Your task to perform on an android device: turn pop-ups on in chrome Image 0: 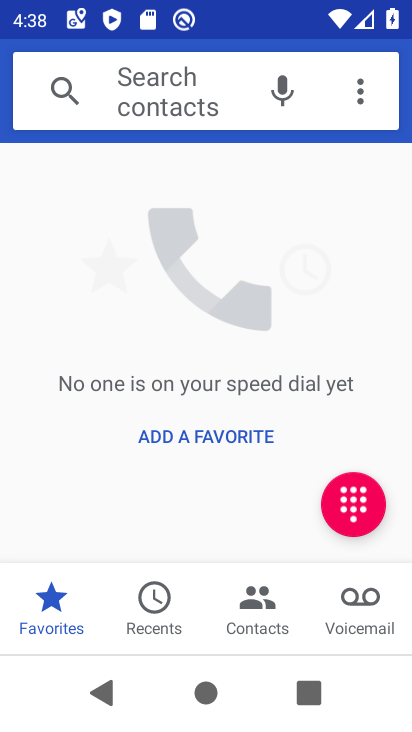
Step 0: press home button
Your task to perform on an android device: turn pop-ups on in chrome Image 1: 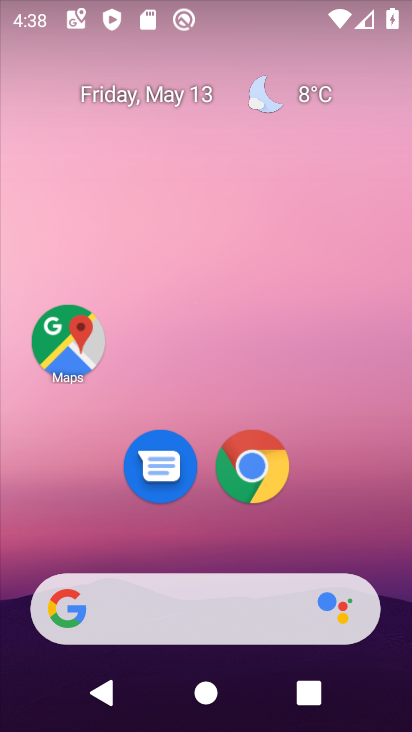
Step 1: click (254, 462)
Your task to perform on an android device: turn pop-ups on in chrome Image 2: 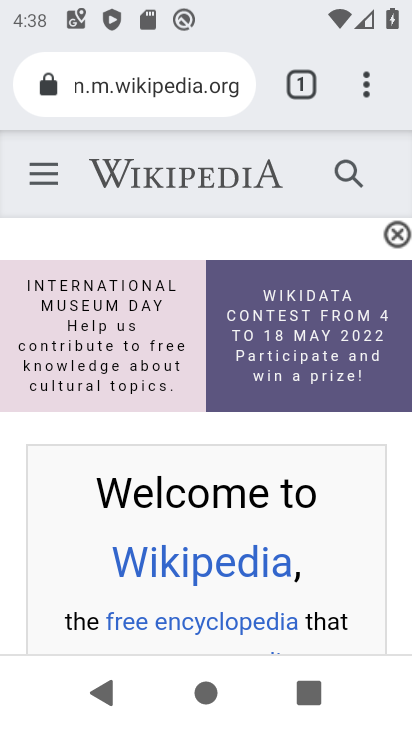
Step 2: click (369, 88)
Your task to perform on an android device: turn pop-ups on in chrome Image 3: 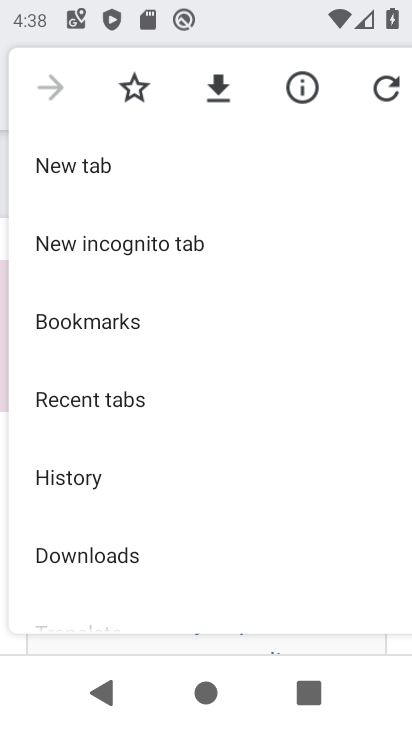
Step 3: drag from (183, 556) to (237, 94)
Your task to perform on an android device: turn pop-ups on in chrome Image 4: 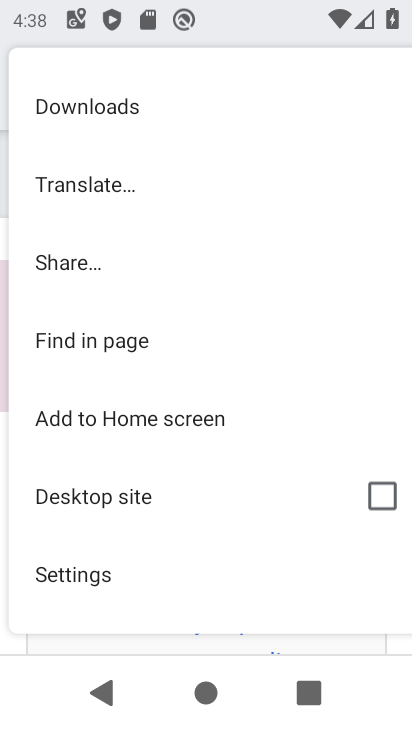
Step 4: click (84, 570)
Your task to perform on an android device: turn pop-ups on in chrome Image 5: 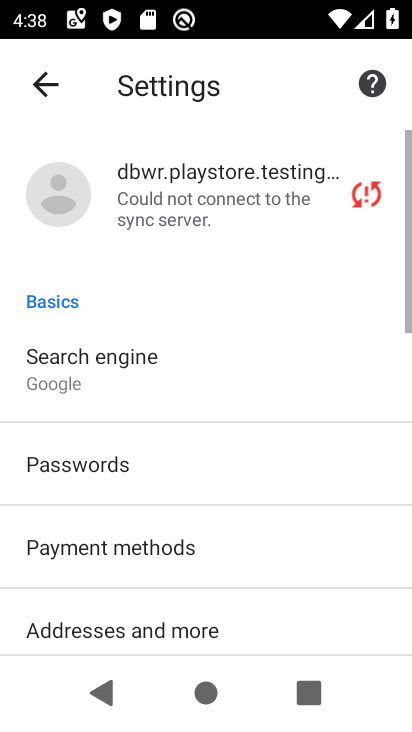
Step 5: drag from (287, 590) to (233, 77)
Your task to perform on an android device: turn pop-ups on in chrome Image 6: 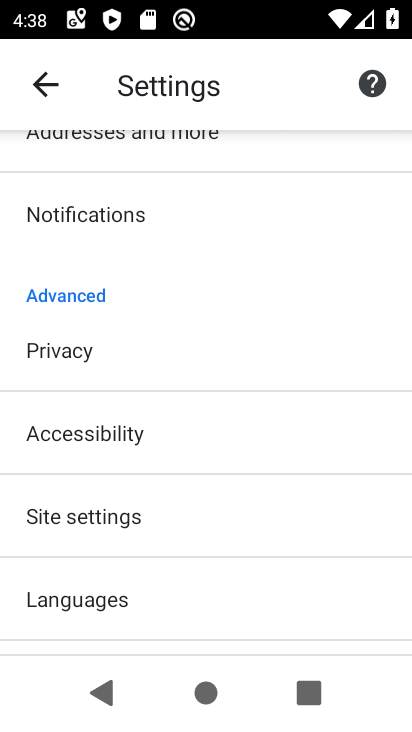
Step 6: click (85, 513)
Your task to perform on an android device: turn pop-ups on in chrome Image 7: 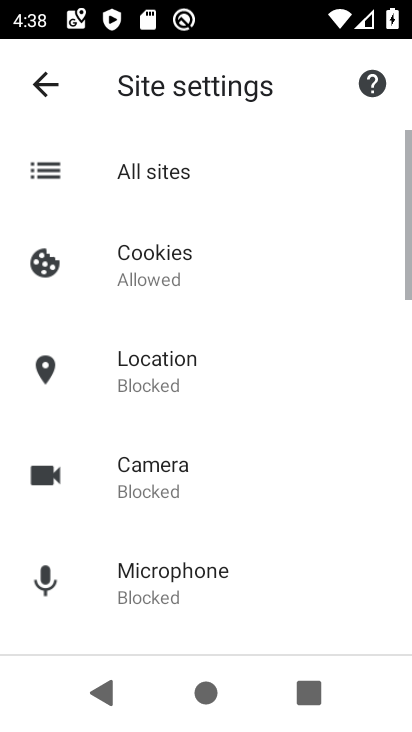
Step 7: drag from (256, 604) to (198, 84)
Your task to perform on an android device: turn pop-ups on in chrome Image 8: 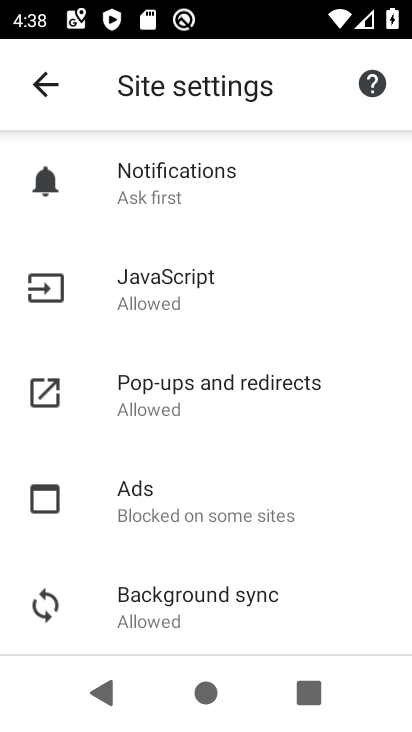
Step 8: click (174, 384)
Your task to perform on an android device: turn pop-ups on in chrome Image 9: 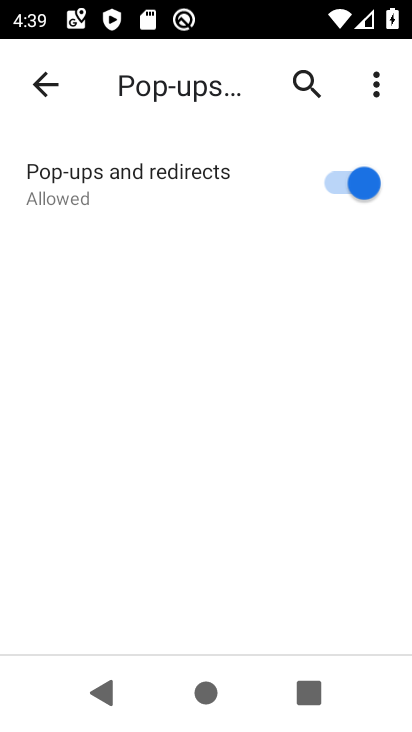
Step 9: task complete